Your task to perform on an android device: Go to internet settings Image 0: 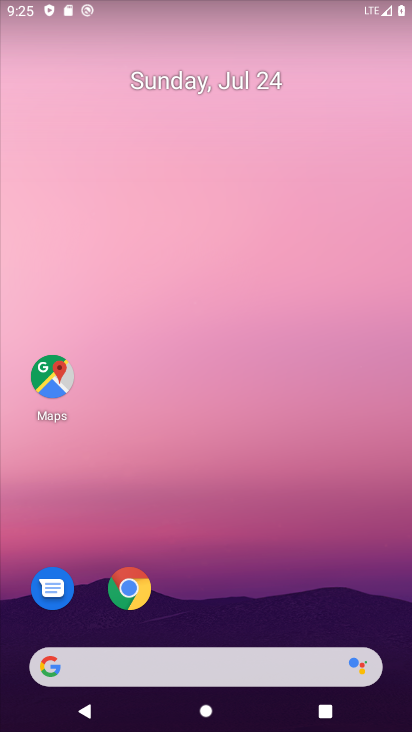
Step 0: drag from (267, 705) to (276, 3)
Your task to perform on an android device: Go to internet settings Image 1: 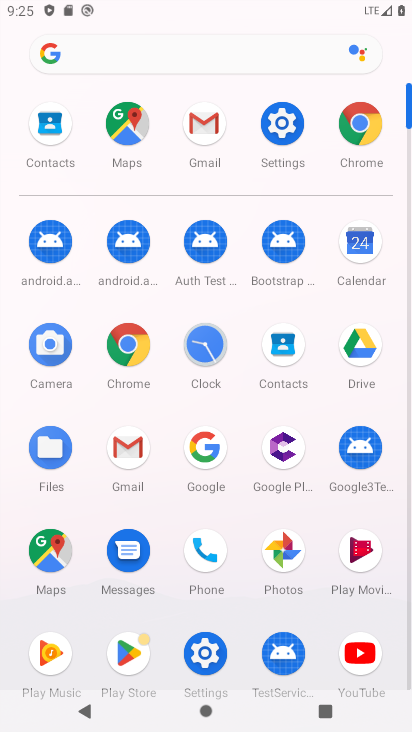
Step 1: click (299, 125)
Your task to perform on an android device: Go to internet settings Image 2: 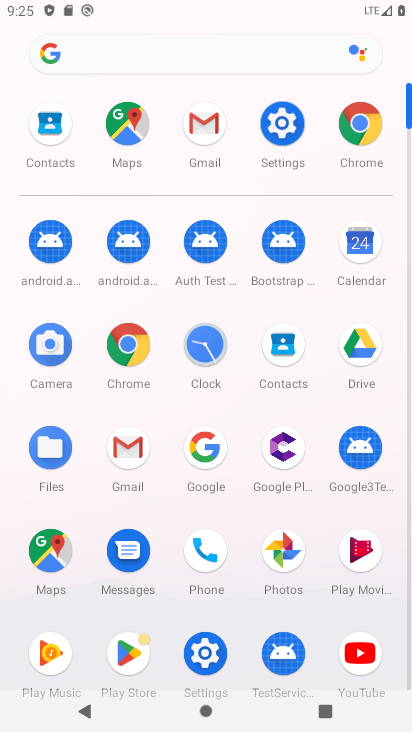
Step 2: click (299, 125)
Your task to perform on an android device: Go to internet settings Image 3: 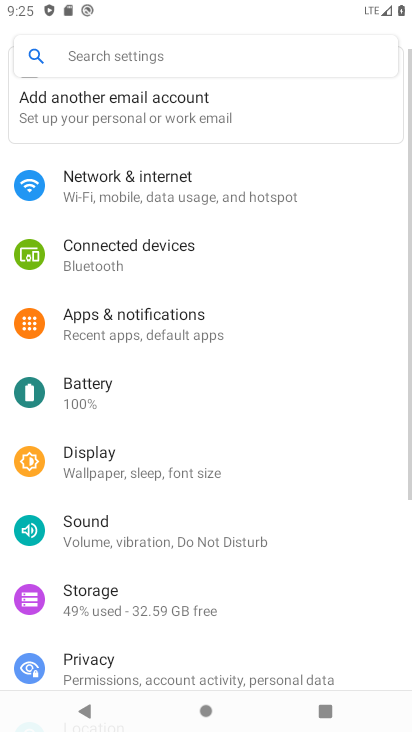
Step 3: click (171, 194)
Your task to perform on an android device: Go to internet settings Image 4: 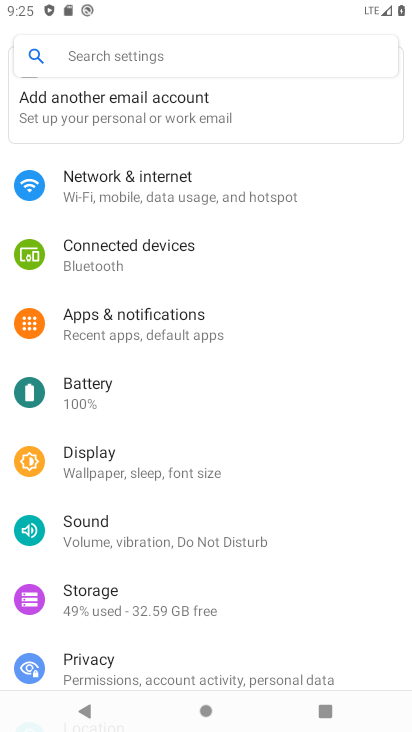
Step 4: click (171, 194)
Your task to perform on an android device: Go to internet settings Image 5: 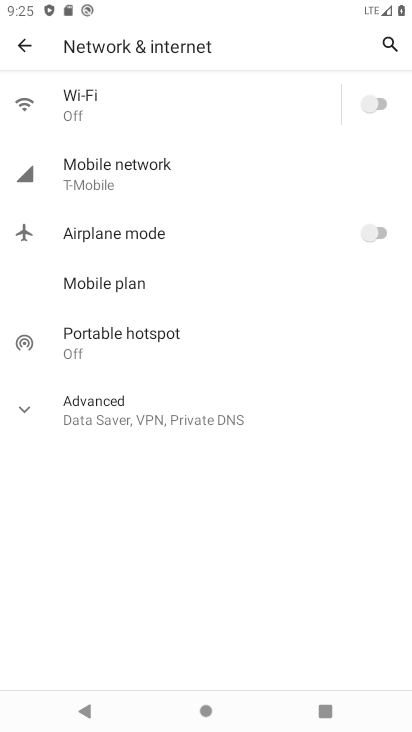
Step 5: task complete